Your task to perform on an android device: turn off wifi Image 0: 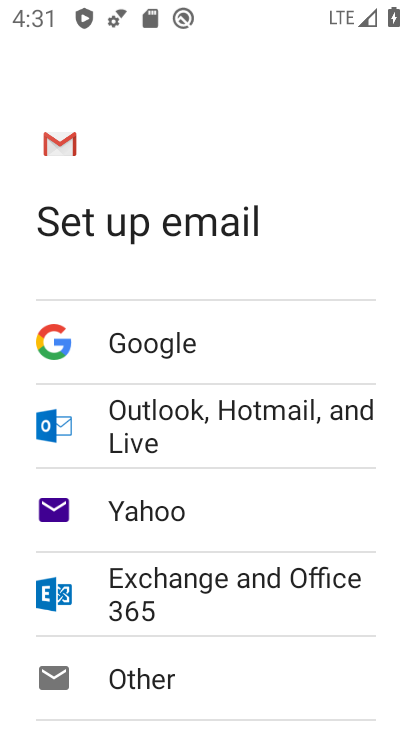
Step 0: press back button
Your task to perform on an android device: turn off wifi Image 1: 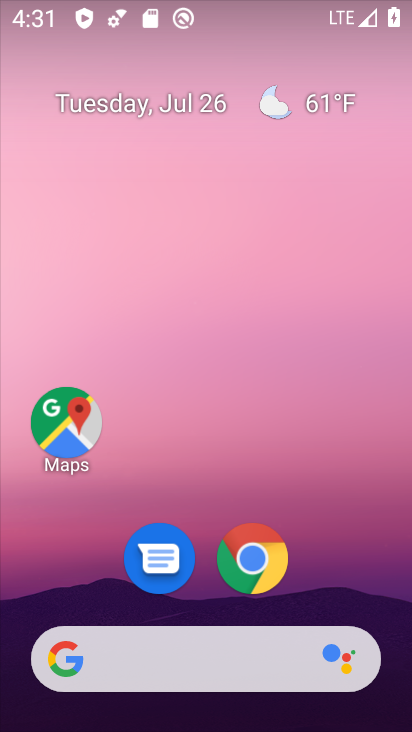
Step 1: task complete